Your task to perform on an android device: Open sound settings Image 0: 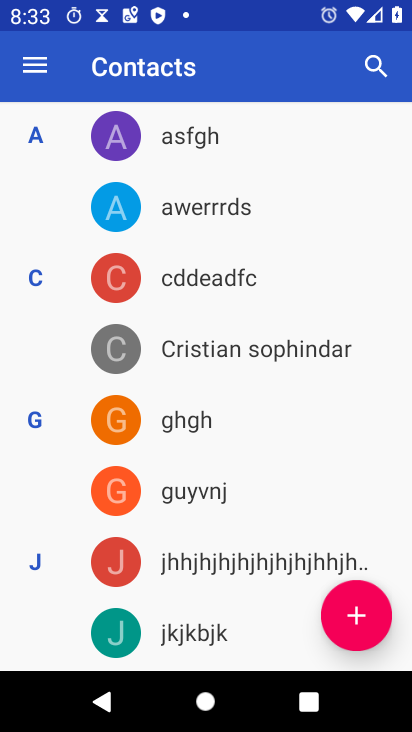
Step 0: press home button
Your task to perform on an android device: Open sound settings Image 1: 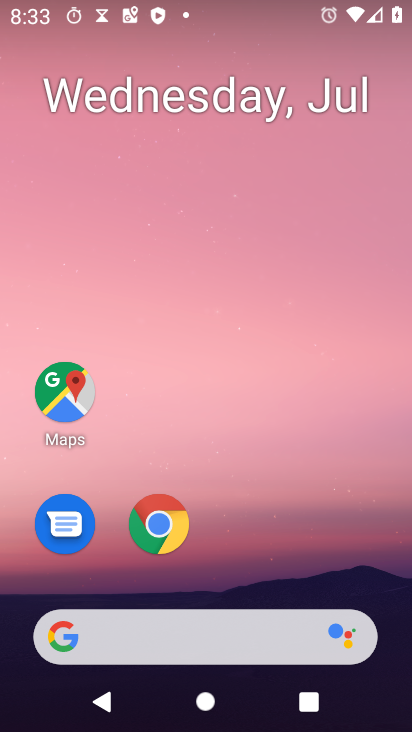
Step 1: drag from (178, 629) to (297, 17)
Your task to perform on an android device: Open sound settings Image 2: 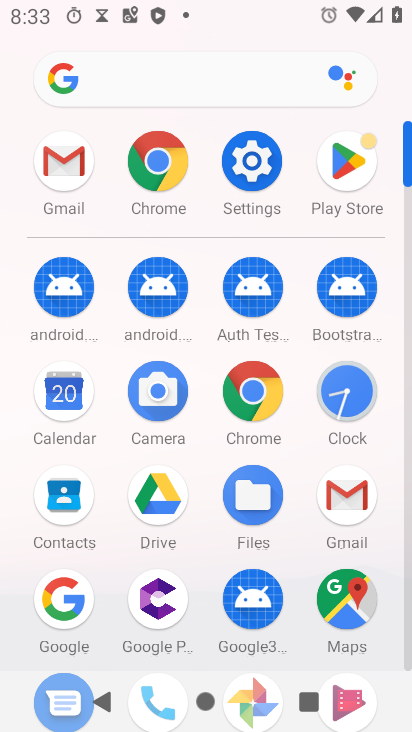
Step 2: click (252, 177)
Your task to perform on an android device: Open sound settings Image 3: 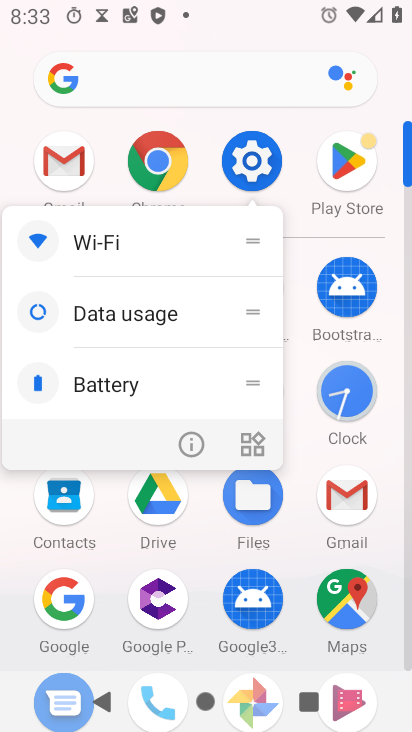
Step 3: click (247, 153)
Your task to perform on an android device: Open sound settings Image 4: 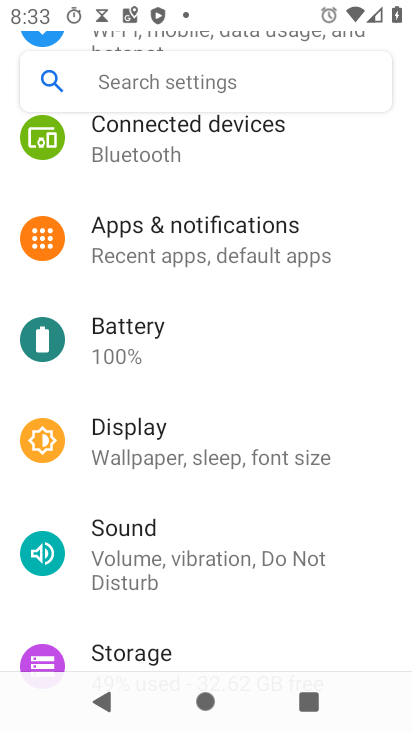
Step 4: click (128, 536)
Your task to perform on an android device: Open sound settings Image 5: 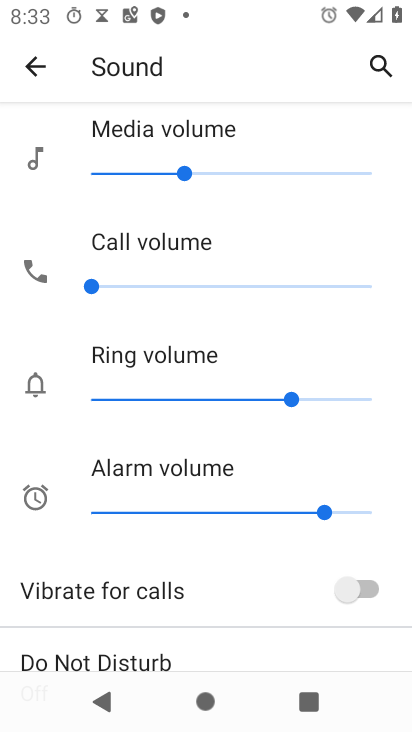
Step 5: task complete